Your task to perform on an android device: What's the weather today? Image 0: 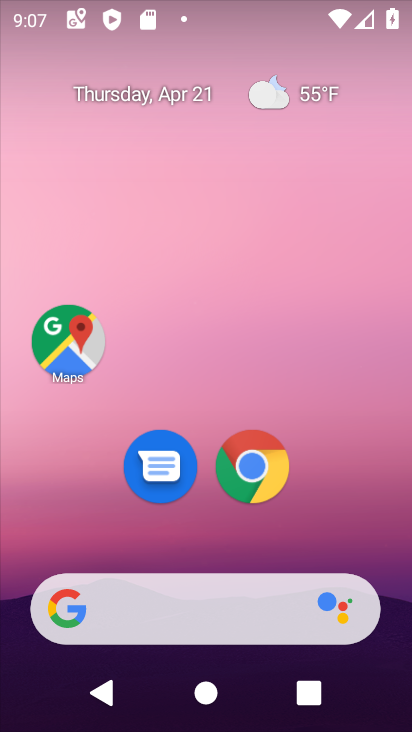
Step 0: click (312, 136)
Your task to perform on an android device: What's the weather today? Image 1: 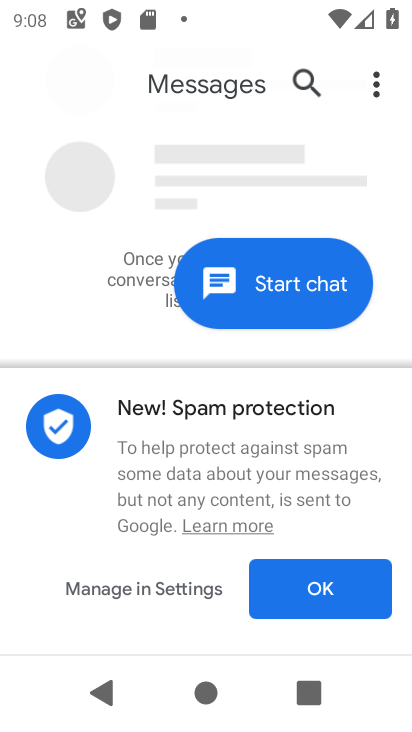
Step 1: press home button
Your task to perform on an android device: What's the weather today? Image 2: 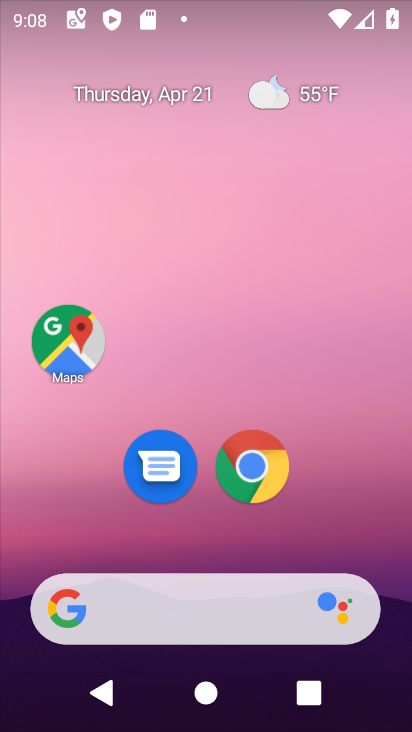
Step 2: drag from (328, 516) to (340, 145)
Your task to perform on an android device: What's the weather today? Image 3: 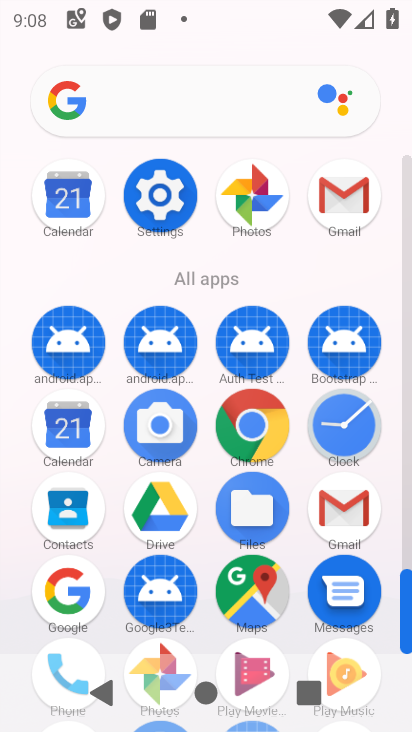
Step 3: click (195, 102)
Your task to perform on an android device: What's the weather today? Image 4: 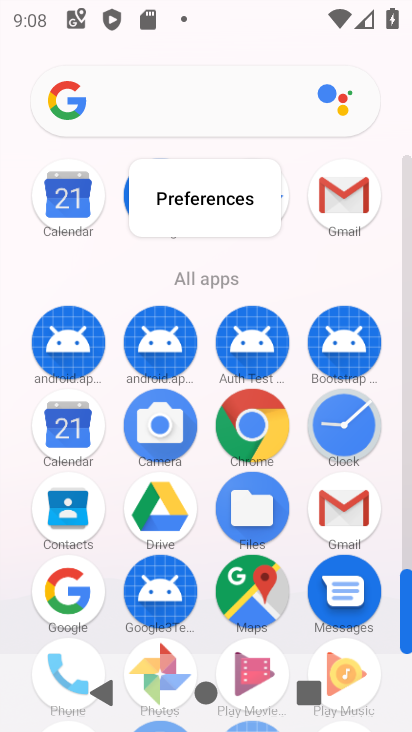
Step 4: type "what's the weather today"
Your task to perform on an android device: What's the weather today? Image 5: 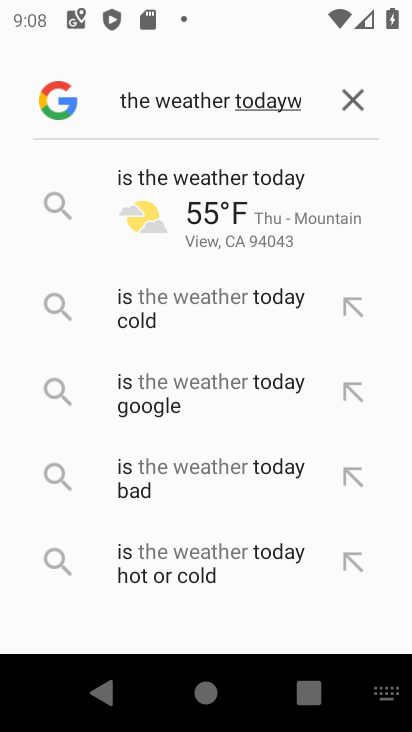
Step 5: click (281, 222)
Your task to perform on an android device: What's the weather today? Image 6: 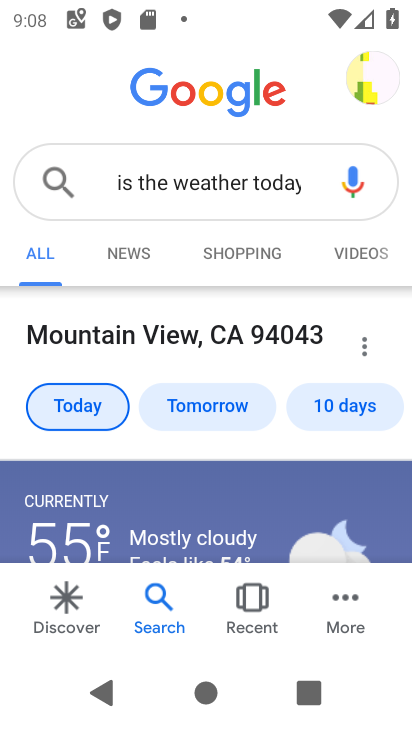
Step 6: task complete